Your task to perform on an android device: delete a single message in the gmail app Image 0: 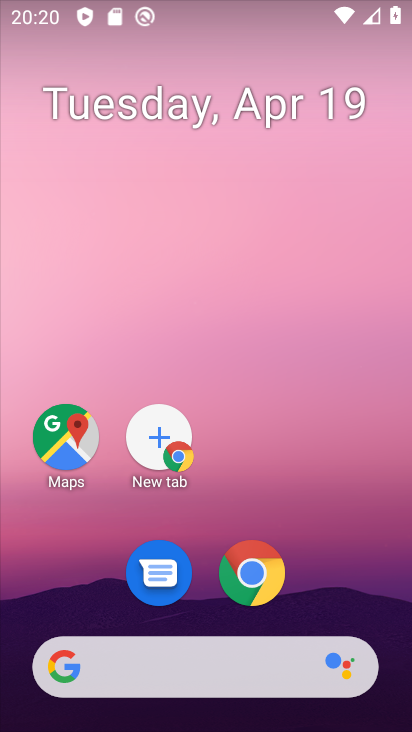
Step 0: drag from (369, 611) to (352, 124)
Your task to perform on an android device: delete a single message in the gmail app Image 1: 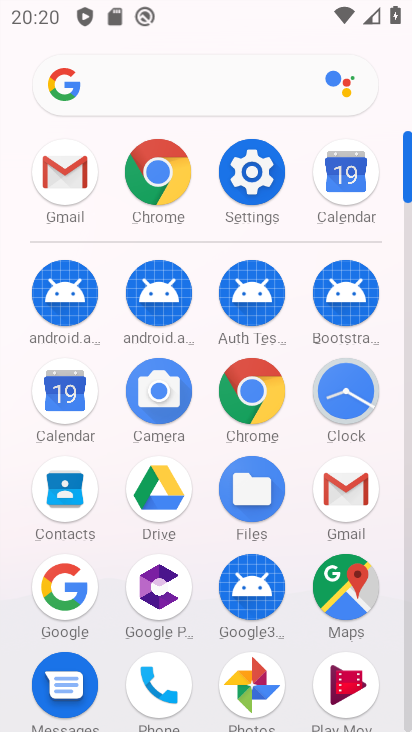
Step 1: click (349, 494)
Your task to perform on an android device: delete a single message in the gmail app Image 2: 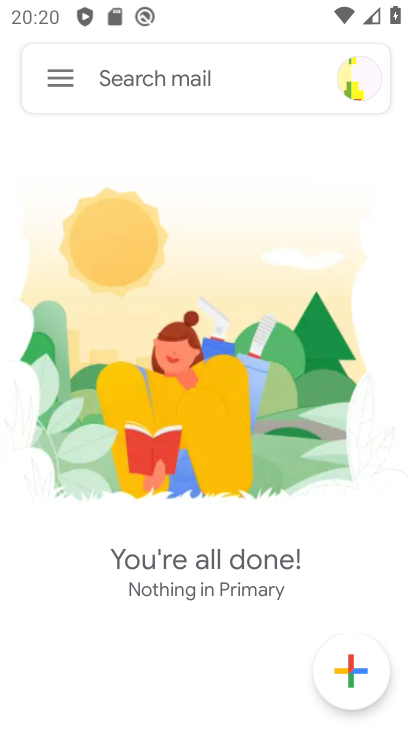
Step 2: click (57, 72)
Your task to perform on an android device: delete a single message in the gmail app Image 3: 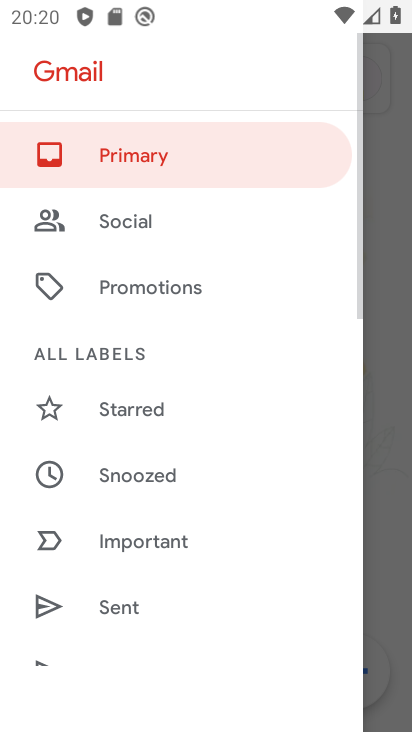
Step 3: click (134, 144)
Your task to perform on an android device: delete a single message in the gmail app Image 4: 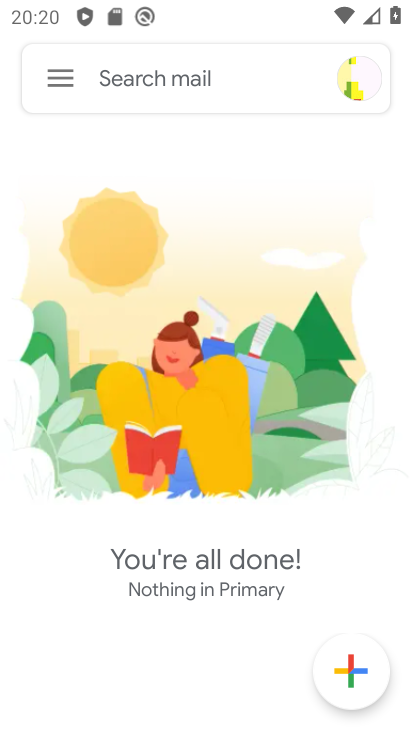
Step 4: task complete